Your task to perform on an android device: star an email in the gmail app Image 0: 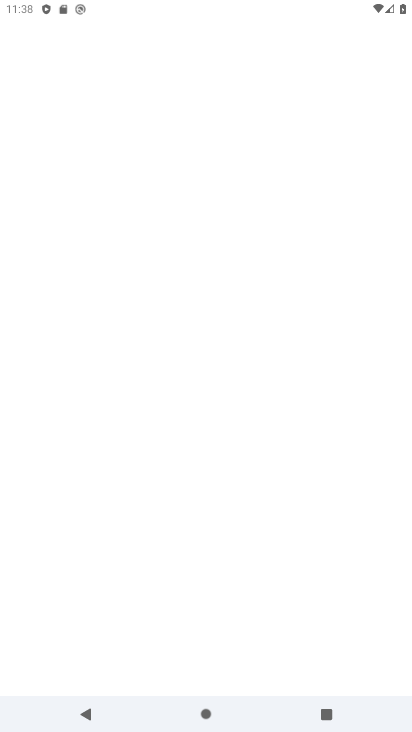
Step 0: press home button
Your task to perform on an android device: star an email in the gmail app Image 1: 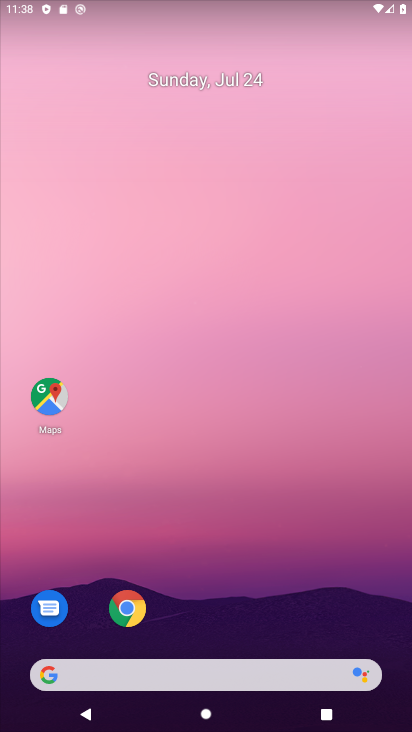
Step 1: drag from (252, 601) to (220, 5)
Your task to perform on an android device: star an email in the gmail app Image 2: 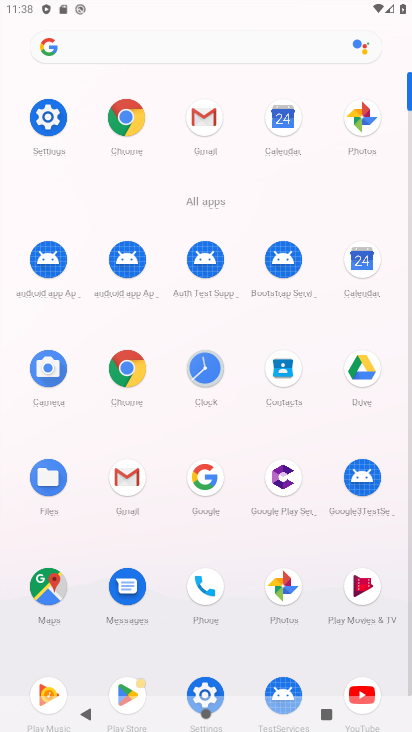
Step 2: click (123, 485)
Your task to perform on an android device: star an email in the gmail app Image 3: 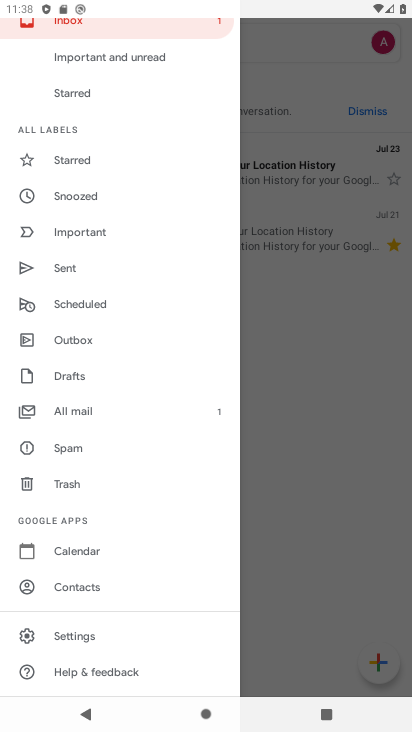
Step 3: click (93, 416)
Your task to perform on an android device: star an email in the gmail app Image 4: 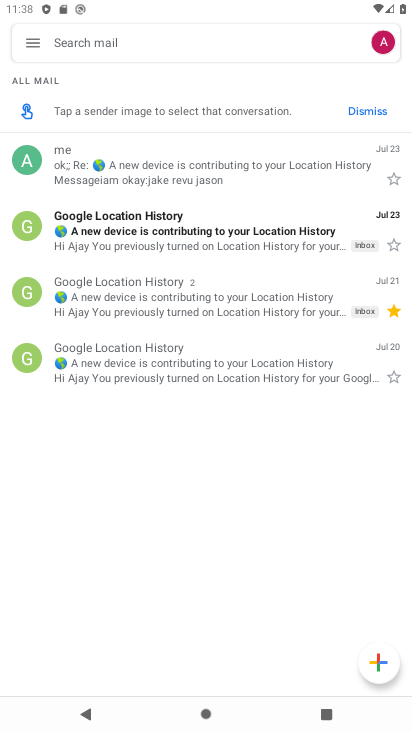
Step 4: click (288, 185)
Your task to perform on an android device: star an email in the gmail app Image 5: 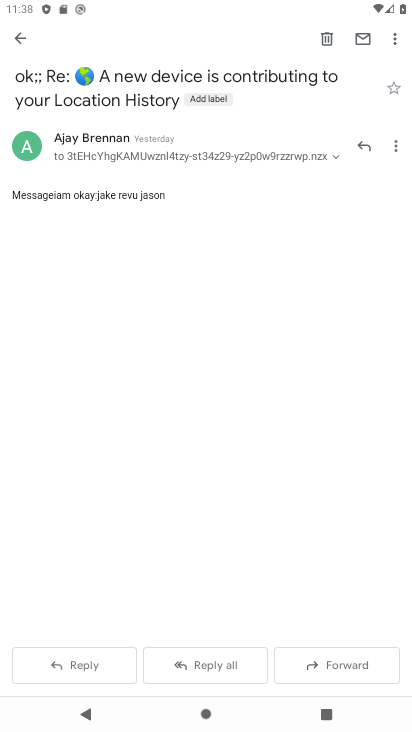
Step 5: click (390, 92)
Your task to perform on an android device: star an email in the gmail app Image 6: 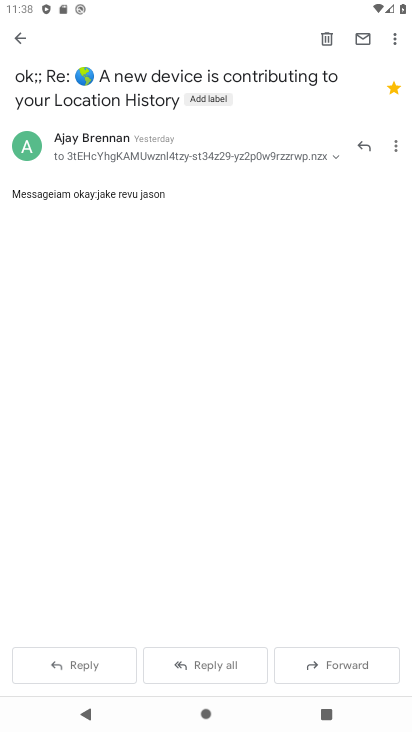
Step 6: task complete